Your task to perform on an android device: Show me productivity apps on the Play Store Image 0: 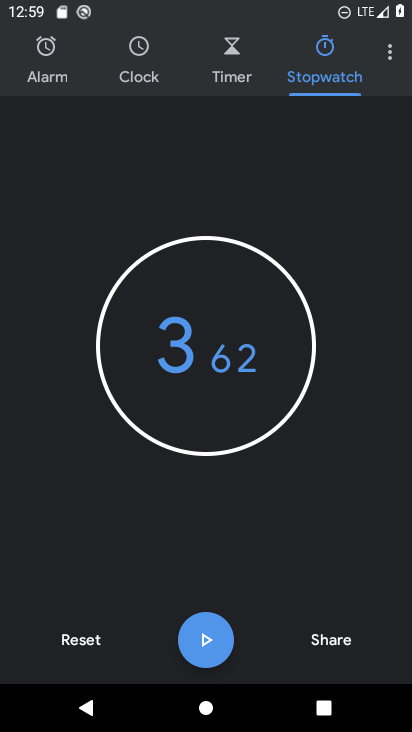
Step 0: press home button
Your task to perform on an android device: Show me productivity apps on the Play Store Image 1: 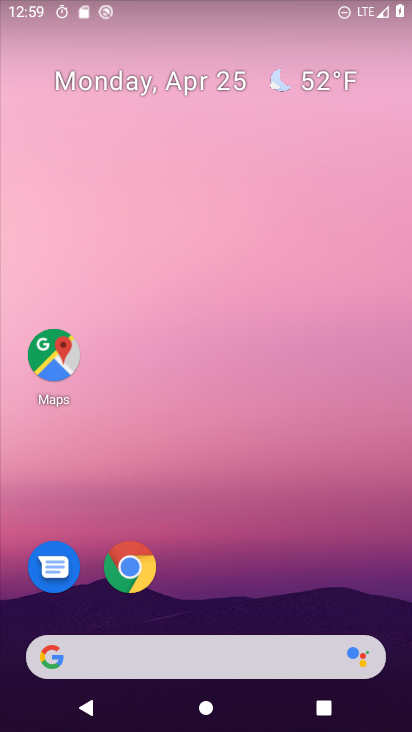
Step 1: drag from (284, 578) to (249, 3)
Your task to perform on an android device: Show me productivity apps on the Play Store Image 2: 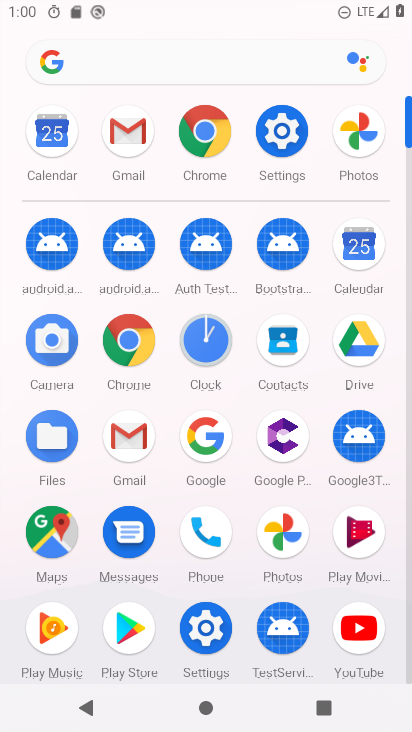
Step 2: click (127, 617)
Your task to perform on an android device: Show me productivity apps on the Play Store Image 3: 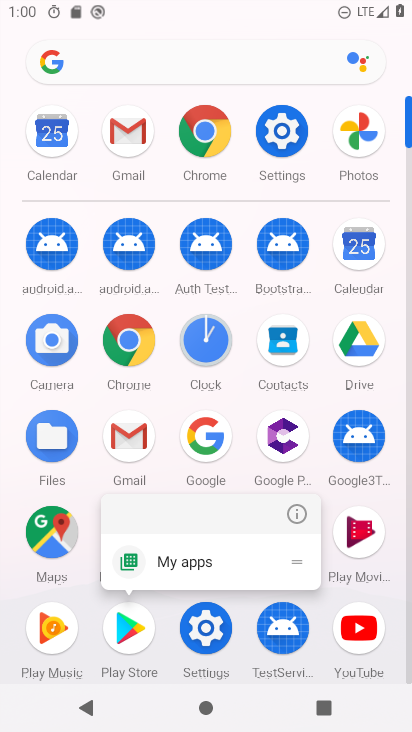
Step 3: click (127, 617)
Your task to perform on an android device: Show me productivity apps on the Play Store Image 4: 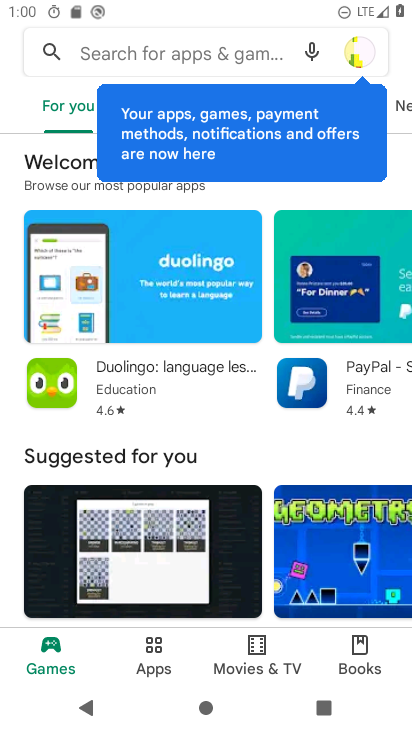
Step 4: click (214, 40)
Your task to perform on an android device: Show me productivity apps on the Play Store Image 5: 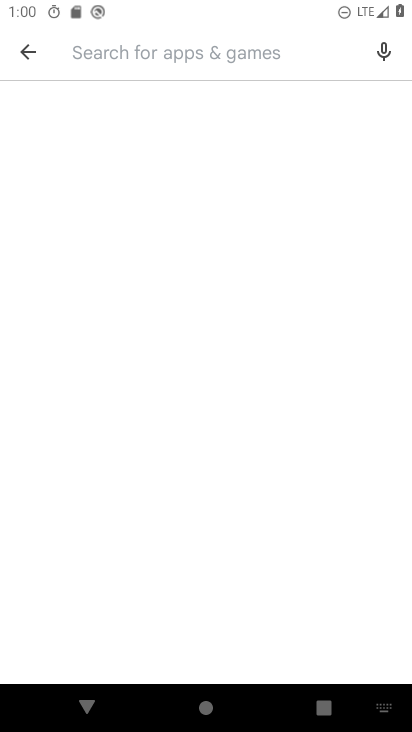
Step 5: type "productivity apps"
Your task to perform on an android device: Show me productivity apps on the Play Store Image 6: 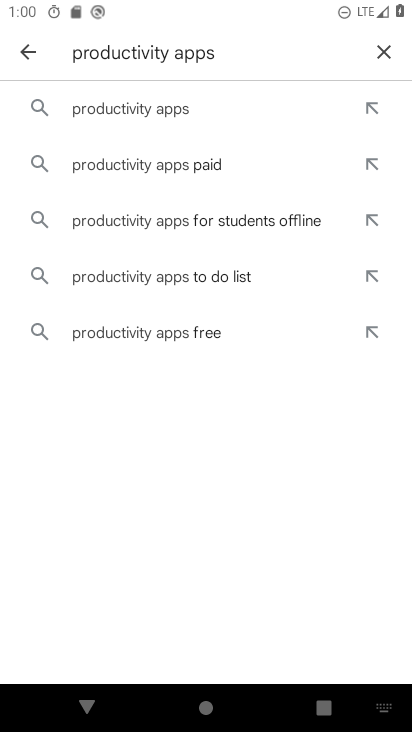
Step 6: click (181, 112)
Your task to perform on an android device: Show me productivity apps on the Play Store Image 7: 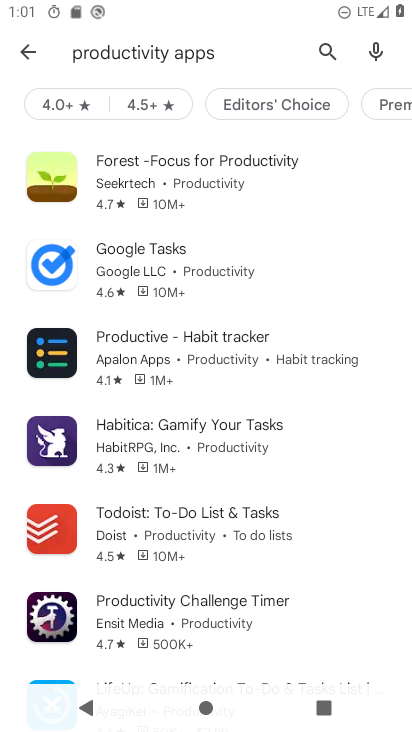
Step 7: click (272, 172)
Your task to perform on an android device: Show me productivity apps on the Play Store Image 8: 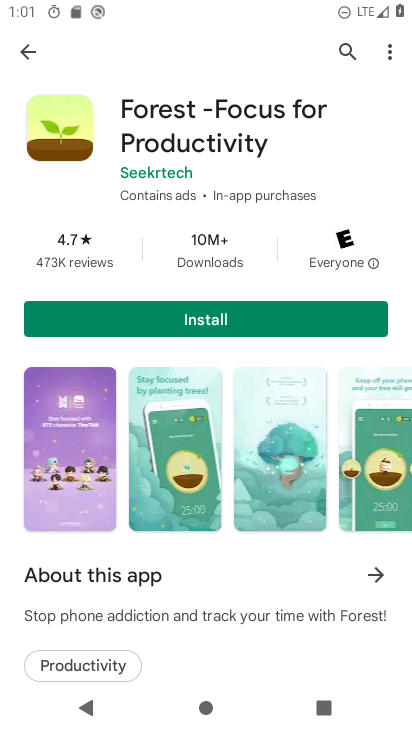
Step 8: task complete